Your task to perform on an android device: create a new album in the google photos Image 0: 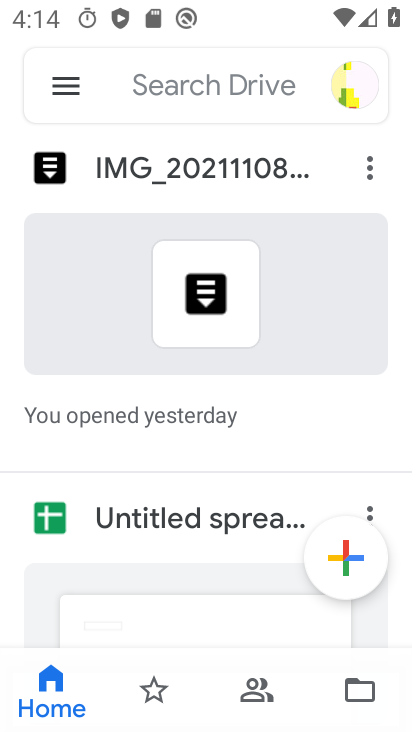
Step 0: press home button
Your task to perform on an android device: create a new album in the google photos Image 1: 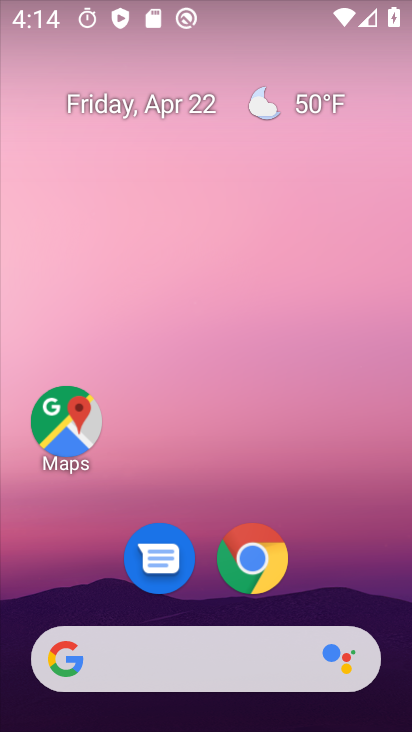
Step 1: drag from (318, 578) to (316, 172)
Your task to perform on an android device: create a new album in the google photos Image 2: 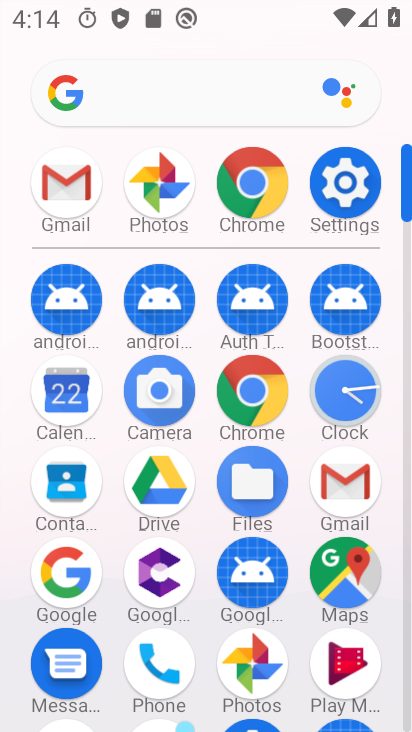
Step 2: click (237, 655)
Your task to perform on an android device: create a new album in the google photos Image 3: 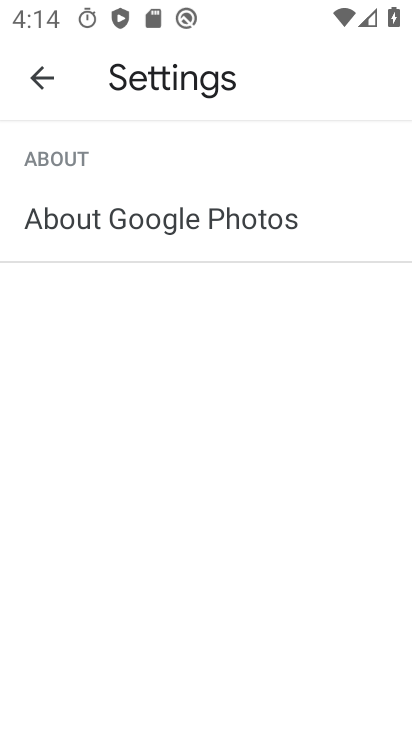
Step 3: press back button
Your task to perform on an android device: create a new album in the google photos Image 4: 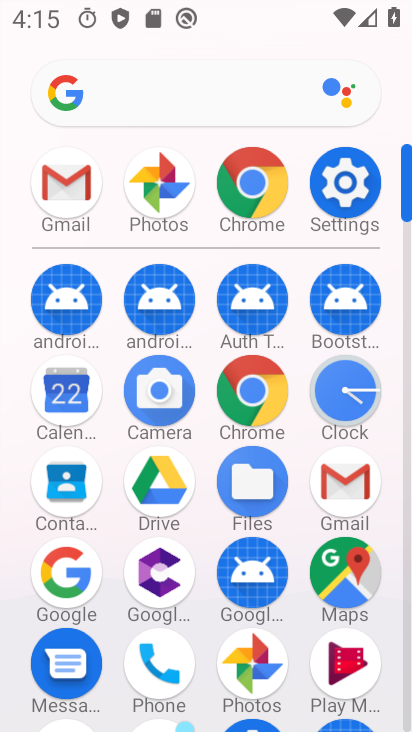
Step 4: click (242, 662)
Your task to perform on an android device: create a new album in the google photos Image 5: 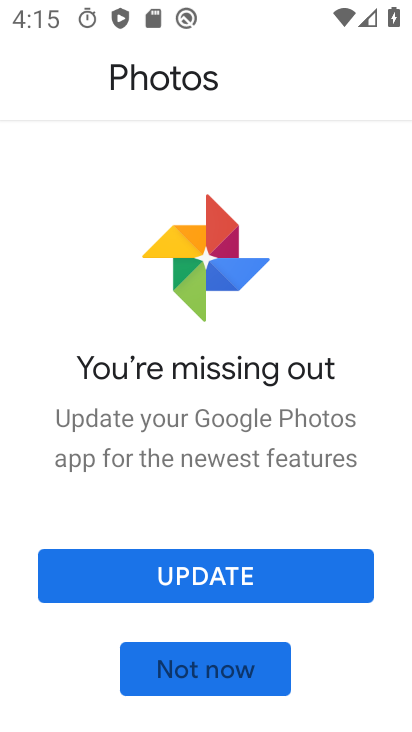
Step 5: click (239, 672)
Your task to perform on an android device: create a new album in the google photos Image 6: 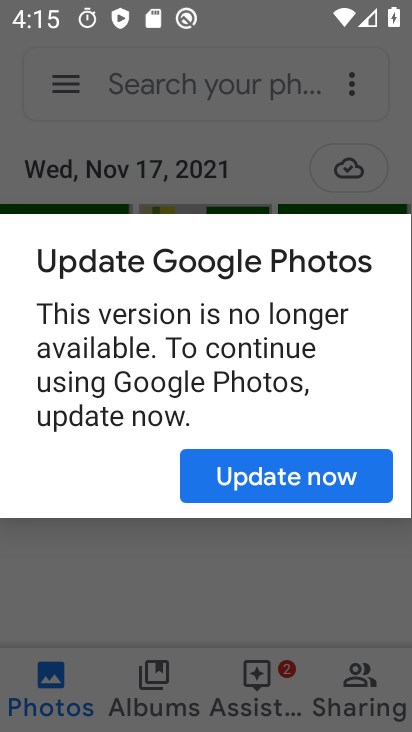
Step 6: click (295, 486)
Your task to perform on an android device: create a new album in the google photos Image 7: 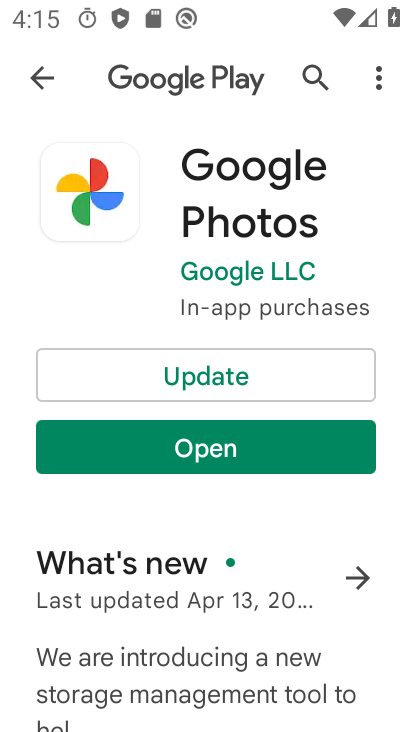
Step 7: click (234, 447)
Your task to perform on an android device: create a new album in the google photos Image 8: 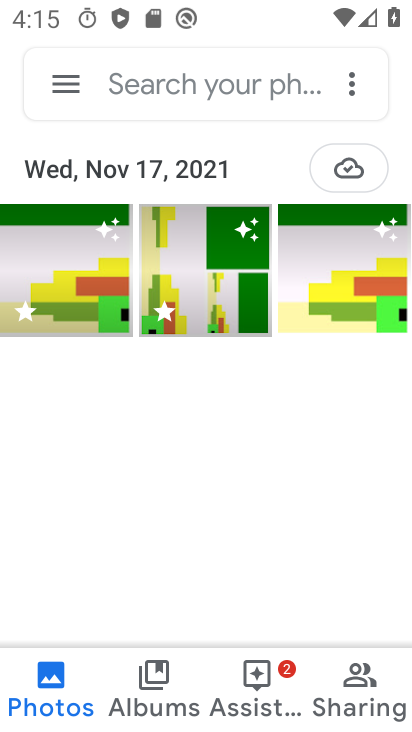
Step 8: click (75, 80)
Your task to perform on an android device: create a new album in the google photos Image 9: 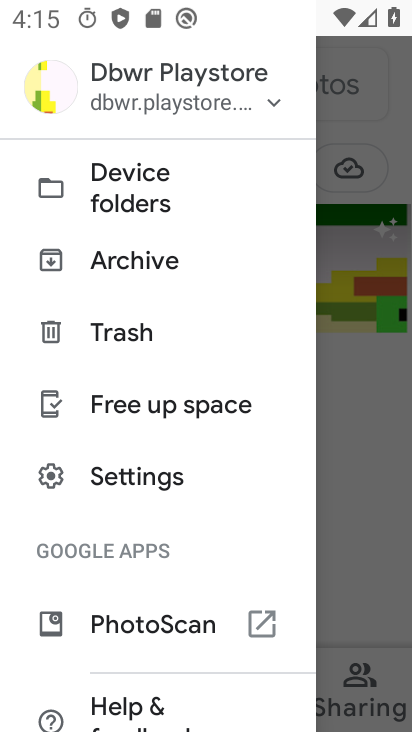
Step 9: press back button
Your task to perform on an android device: create a new album in the google photos Image 10: 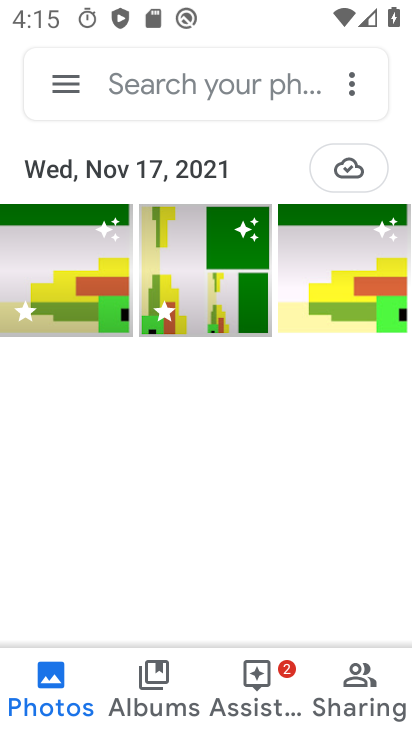
Step 10: click (167, 705)
Your task to perform on an android device: create a new album in the google photos Image 11: 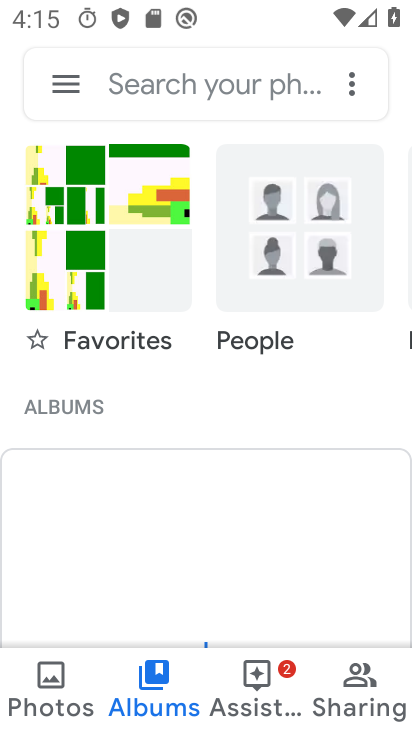
Step 11: click (351, 84)
Your task to perform on an android device: create a new album in the google photos Image 12: 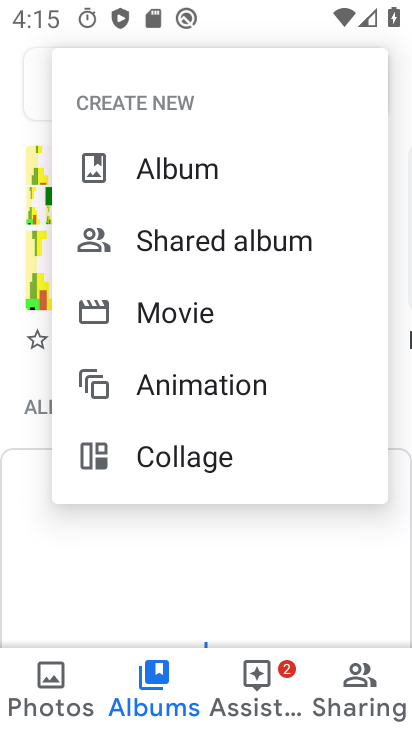
Step 12: click (194, 163)
Your task to perform on an android device: create a new album in the google photos Image 13: 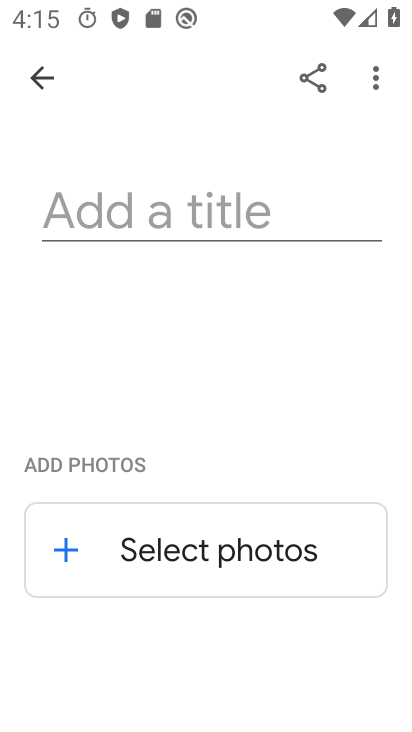
Step 13: click (186, 198)
Your task to perform on an android device: create a new album in the google photos Image 14: 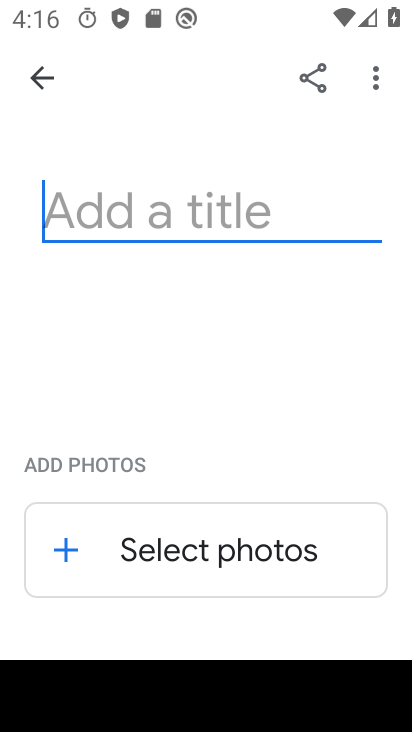
Step 14: type "shiv"
Your task to perform on an android device: create a new album in the google photos Image 15: 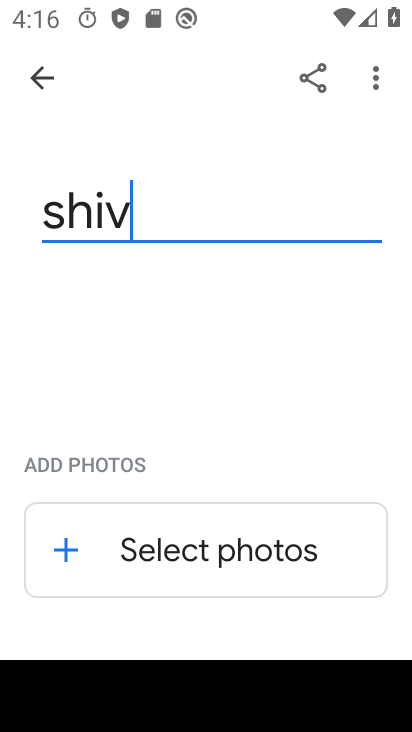
Step 15: click (211, 533)
Your task to perform on an android device: create a new album in the google photos Image 16: 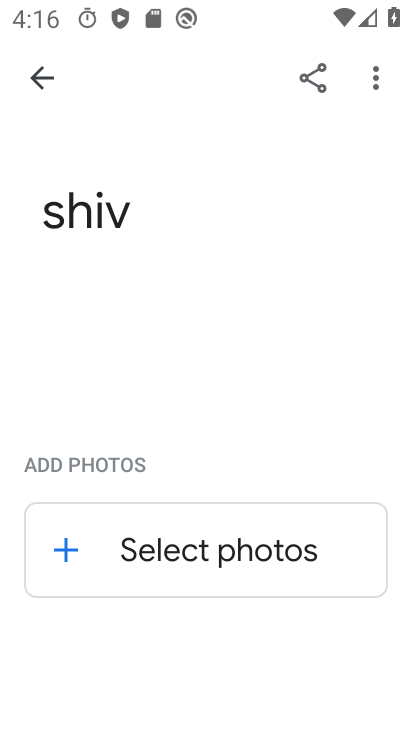
Step 16: click (208, 548)
Your task to perform on an android device: create a new album in the google photos Image 17: 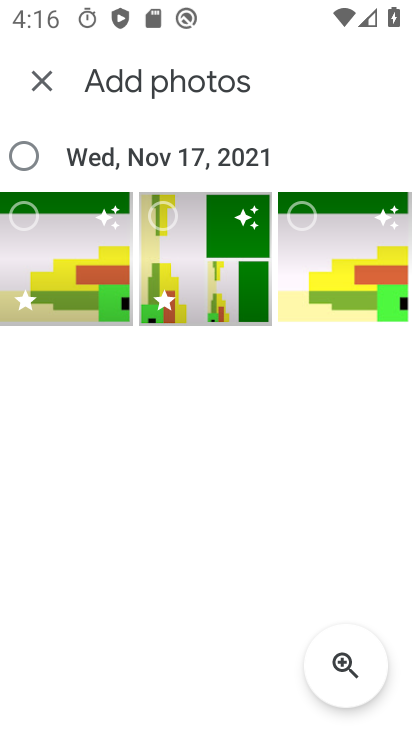
Step 17: click (24, 208)
Your task to perform on an android device: create a new album in the google photos Image 18: 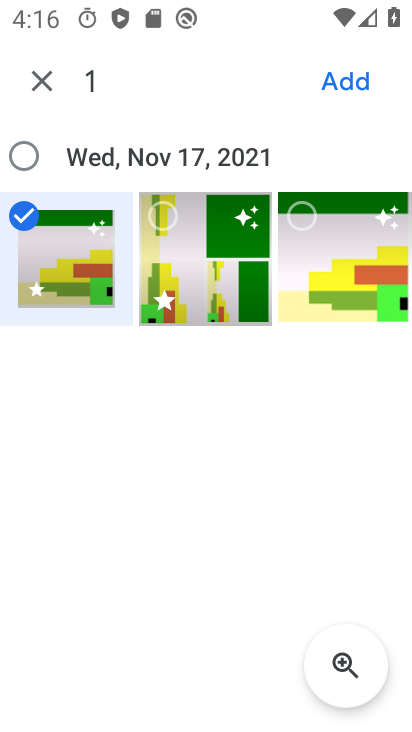
Step 18: click (338, 100)
Your task to perform on an android device: create a new album in the google photos Image 19: 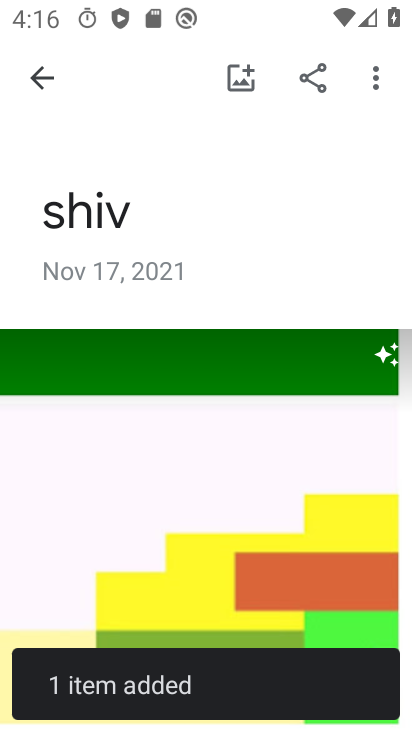
Step 19: task complete